Your task to perform on an android device: snooze an email in the gmail app Image 0: 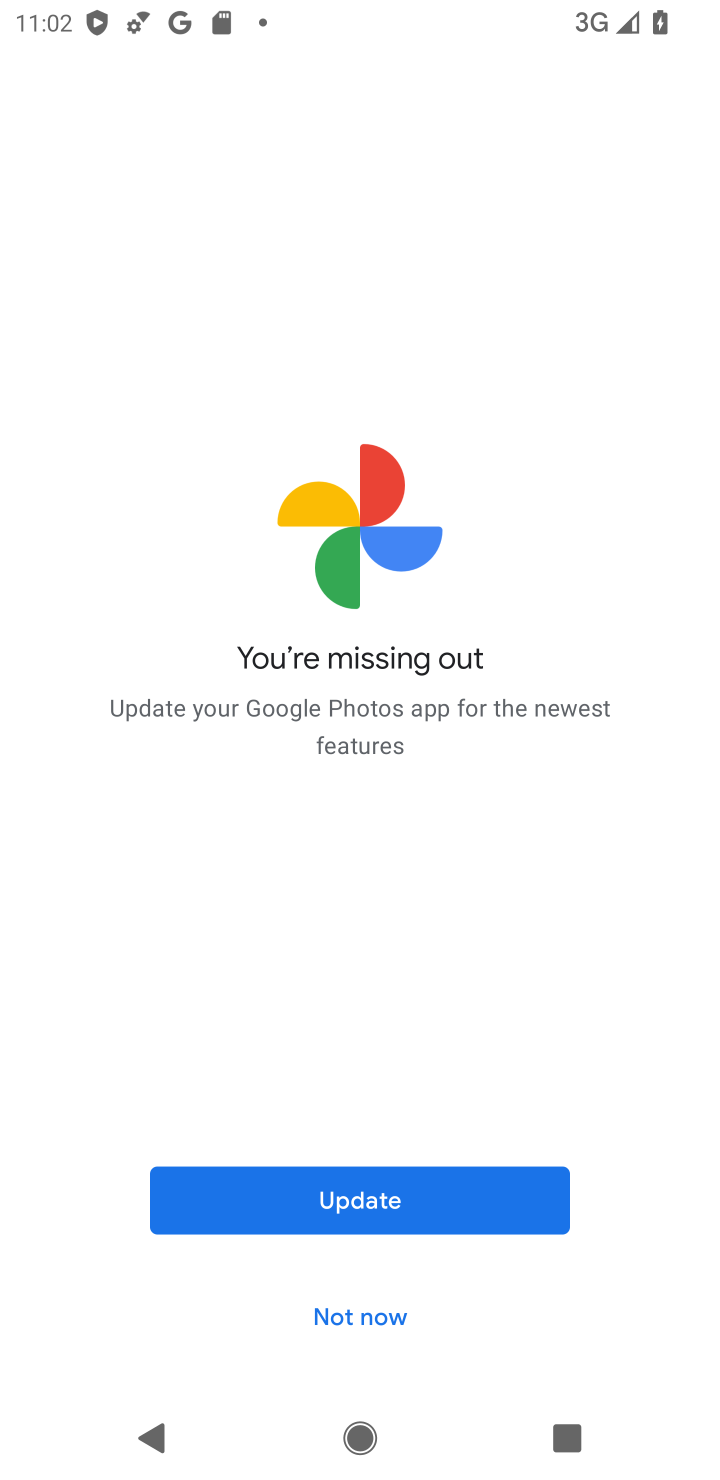
Step 0: press home button
Your task to perform on an android device: snooze an email in the gmail app Image 1: 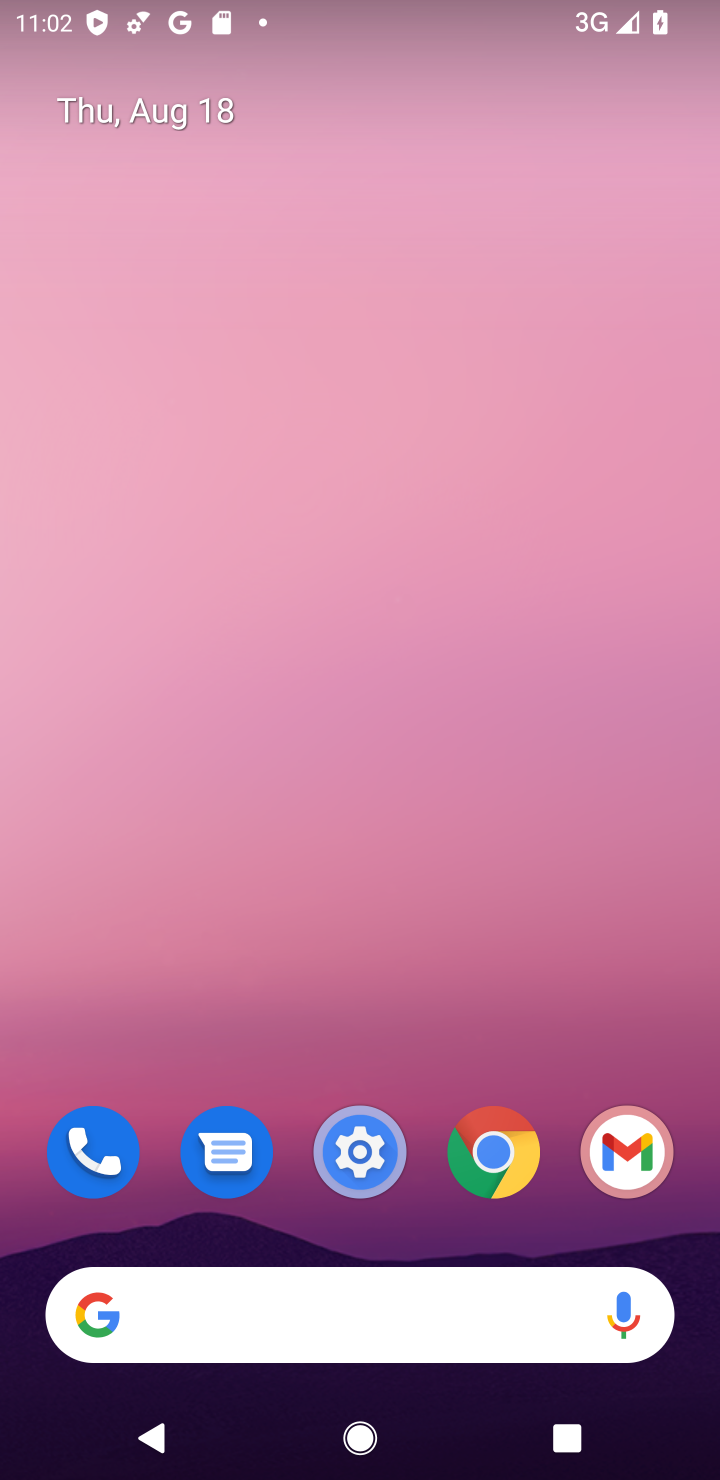
Step 1: click (649, 1141)
Your task to perform on an android device: snooze an email in the gmail app Image 2: 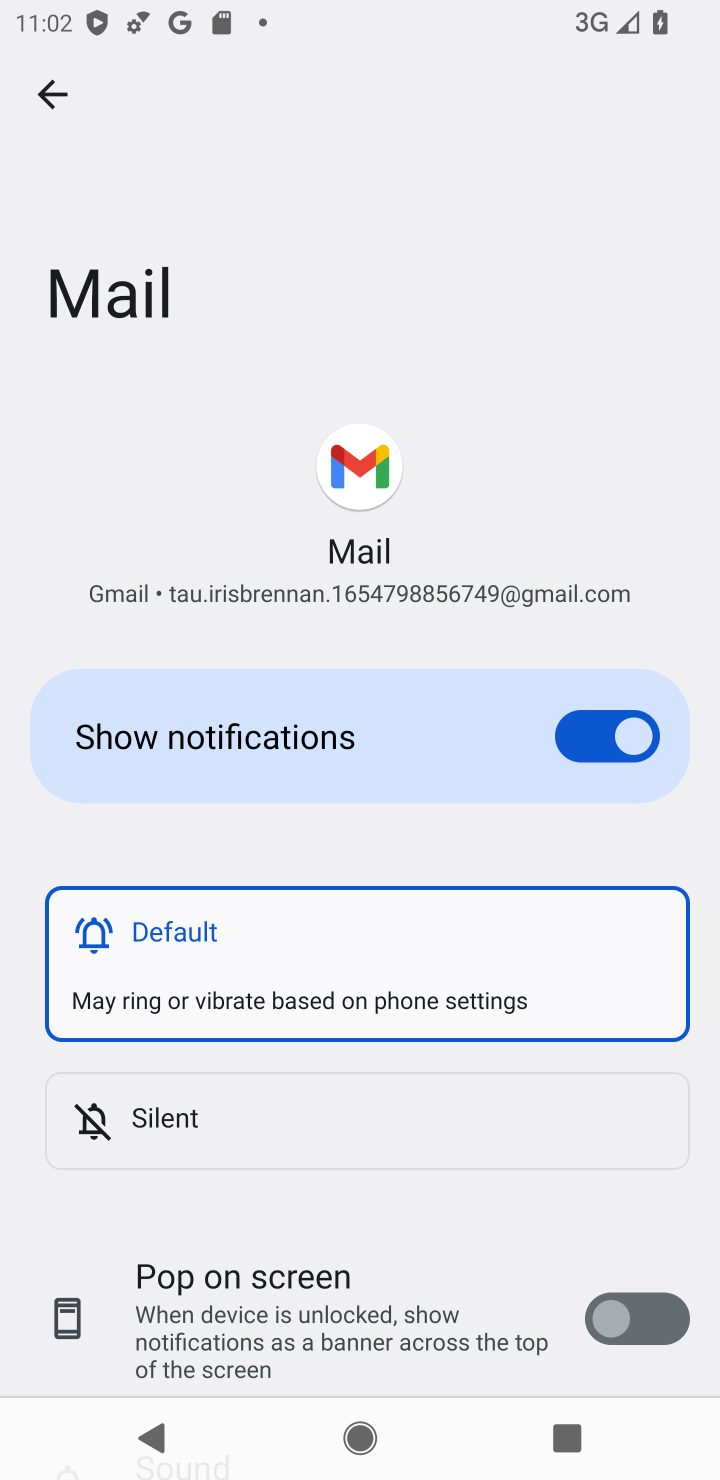
Step 2: press back button
Your task to perform on an android device: snooze an email in the gmail app Image 3: 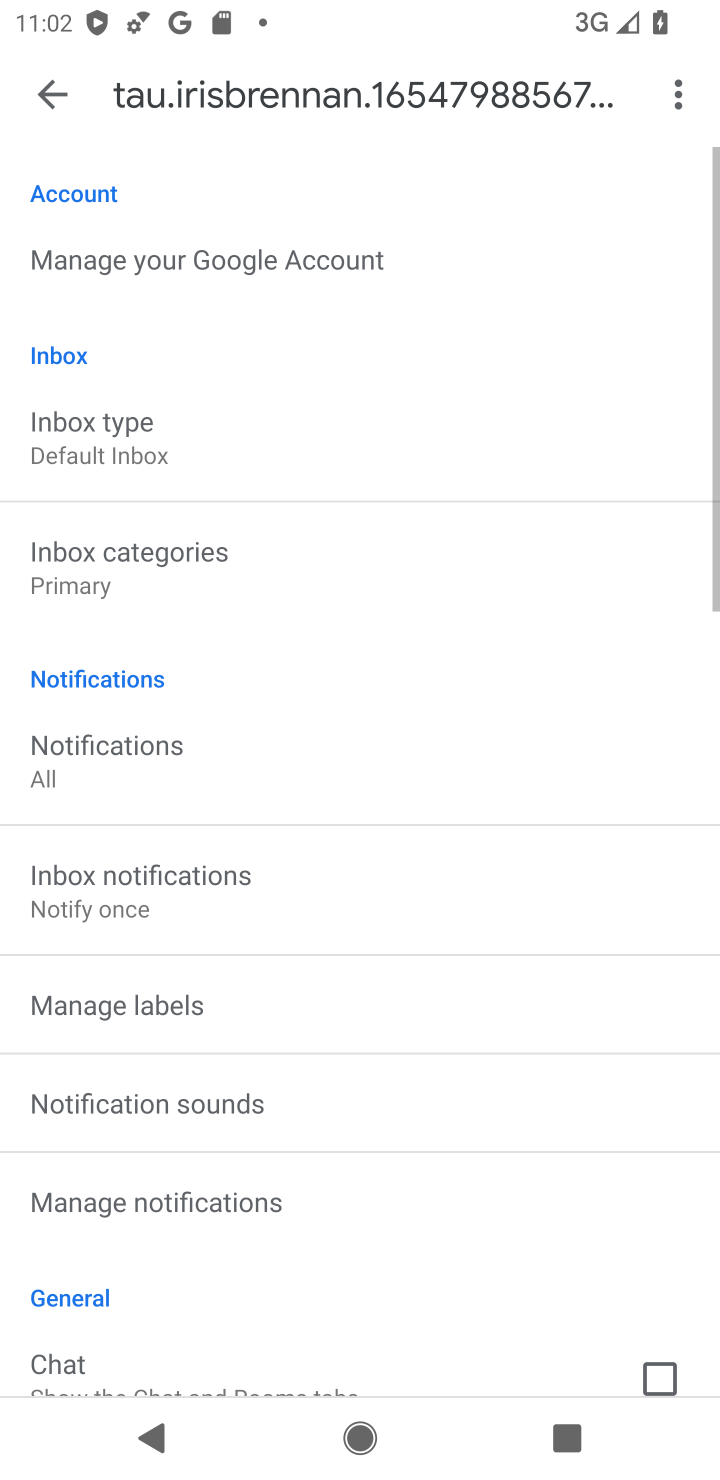
Step 3: press back button
Your task to perform on an android device: snooze an email in the gmail app Image 4: 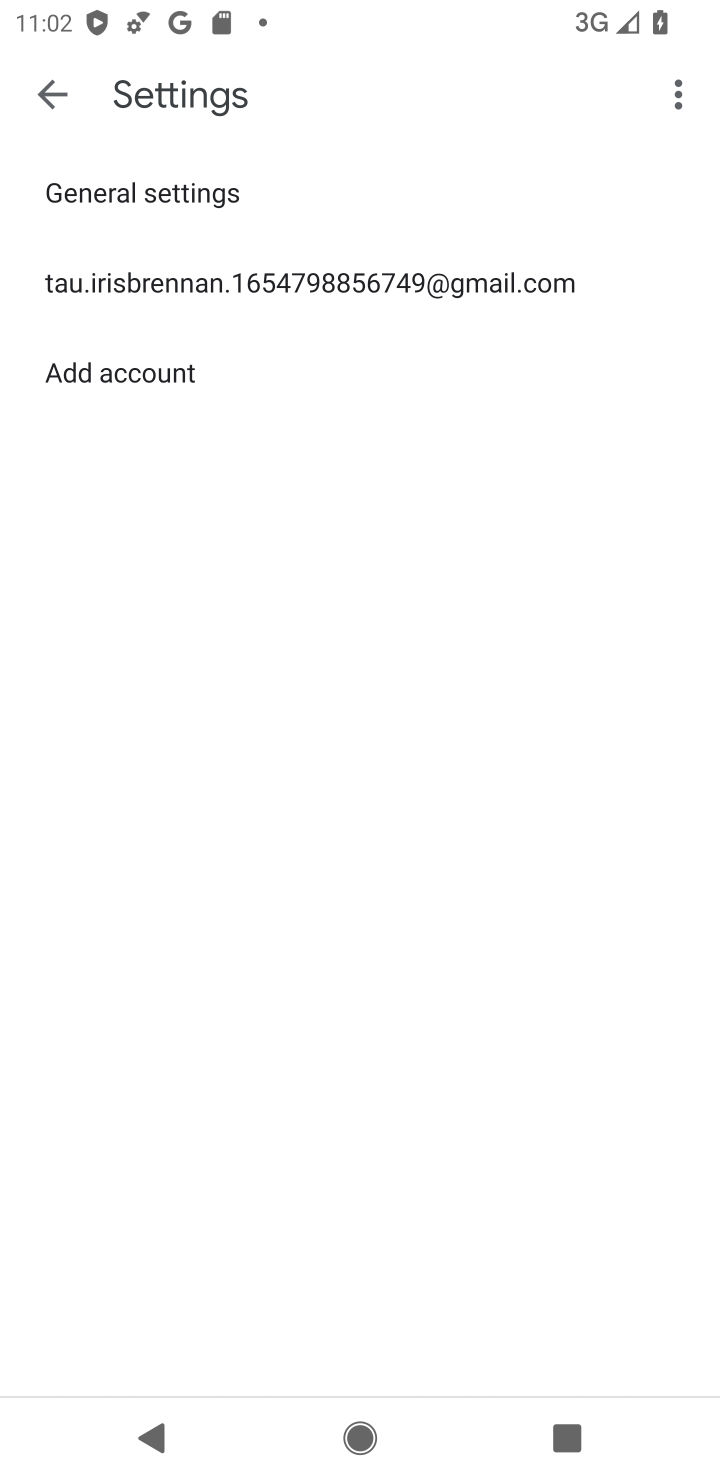
Step 4: press back button
Your task to perform on an android device: snooze an email in the gmail app Image 5: 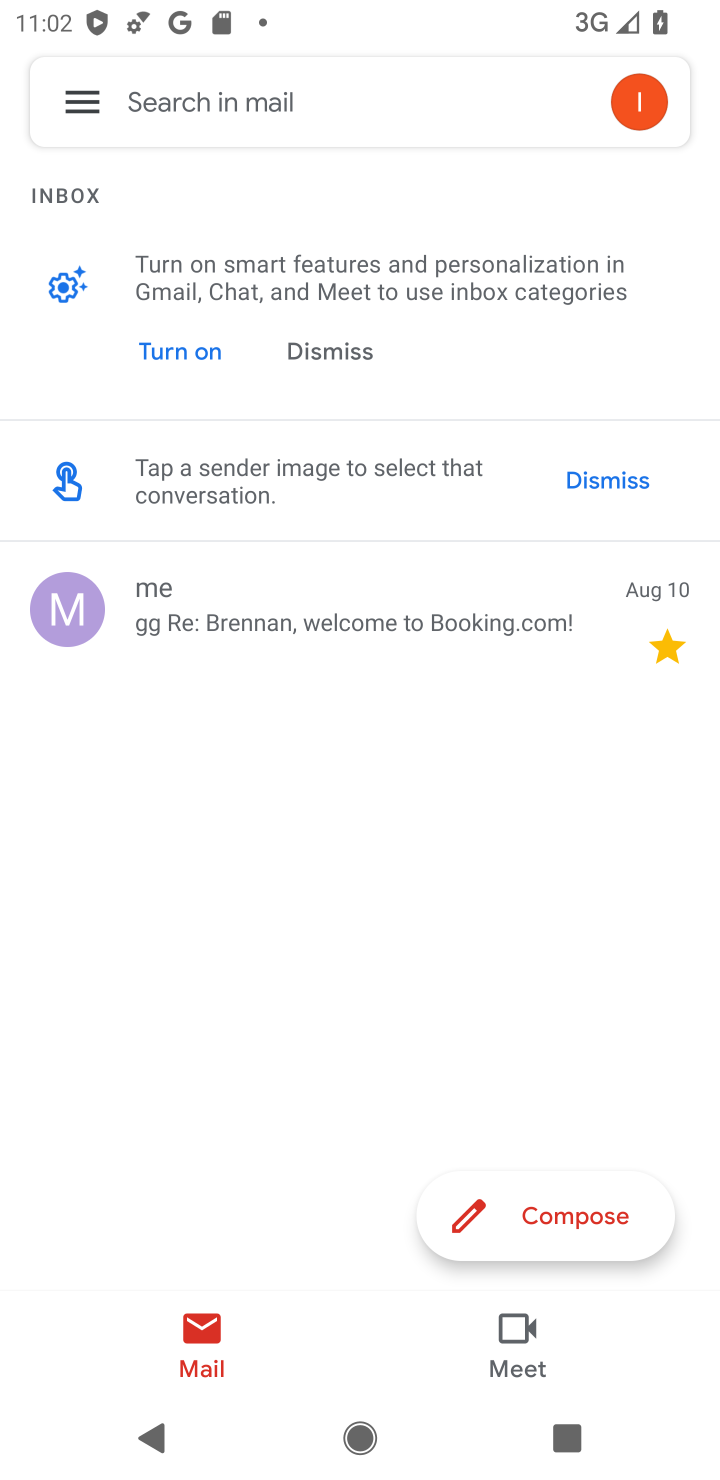
Step 5: click (408, 622)
Your task to perform on an android device: snooze an email in the gmail app Image 6: 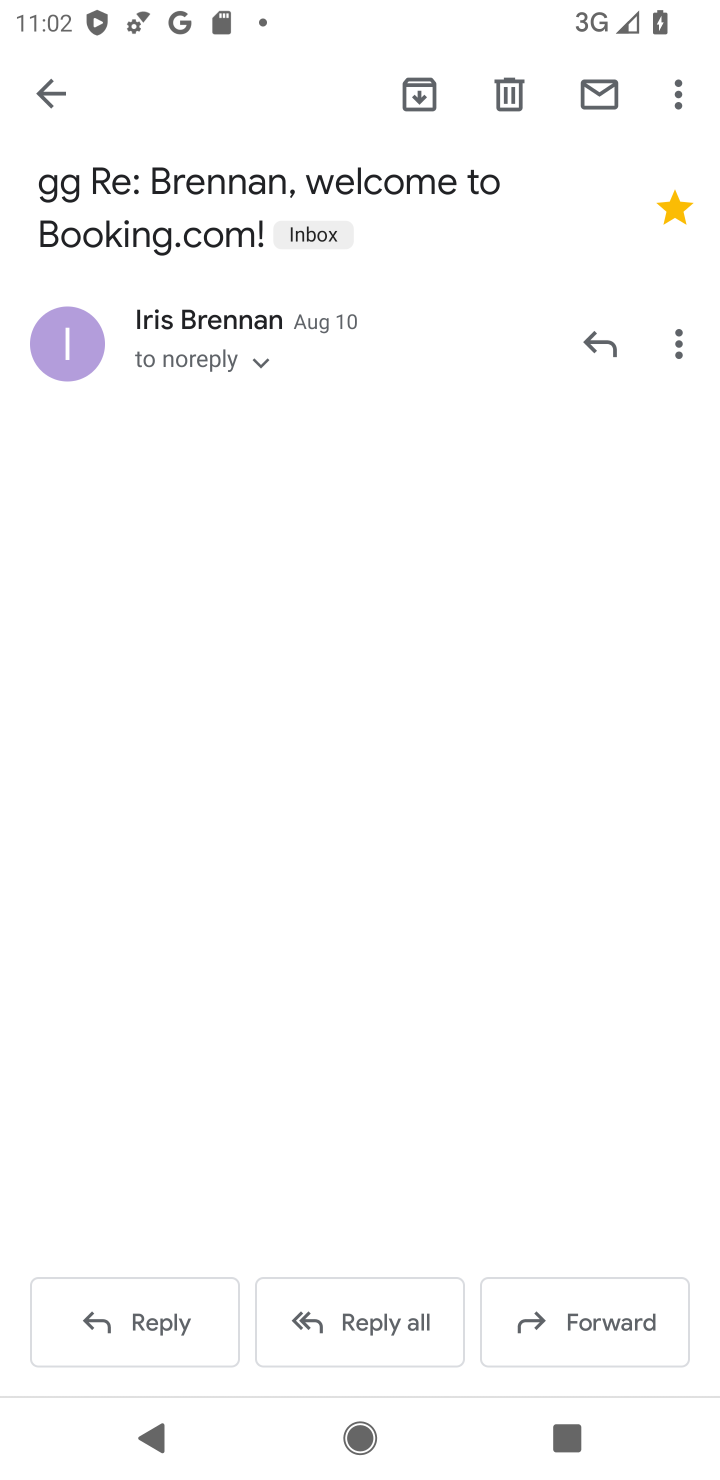
Step 6: click (681, 89)
Your task to perform on an android device: snooze an email in the gmail app Image 7: 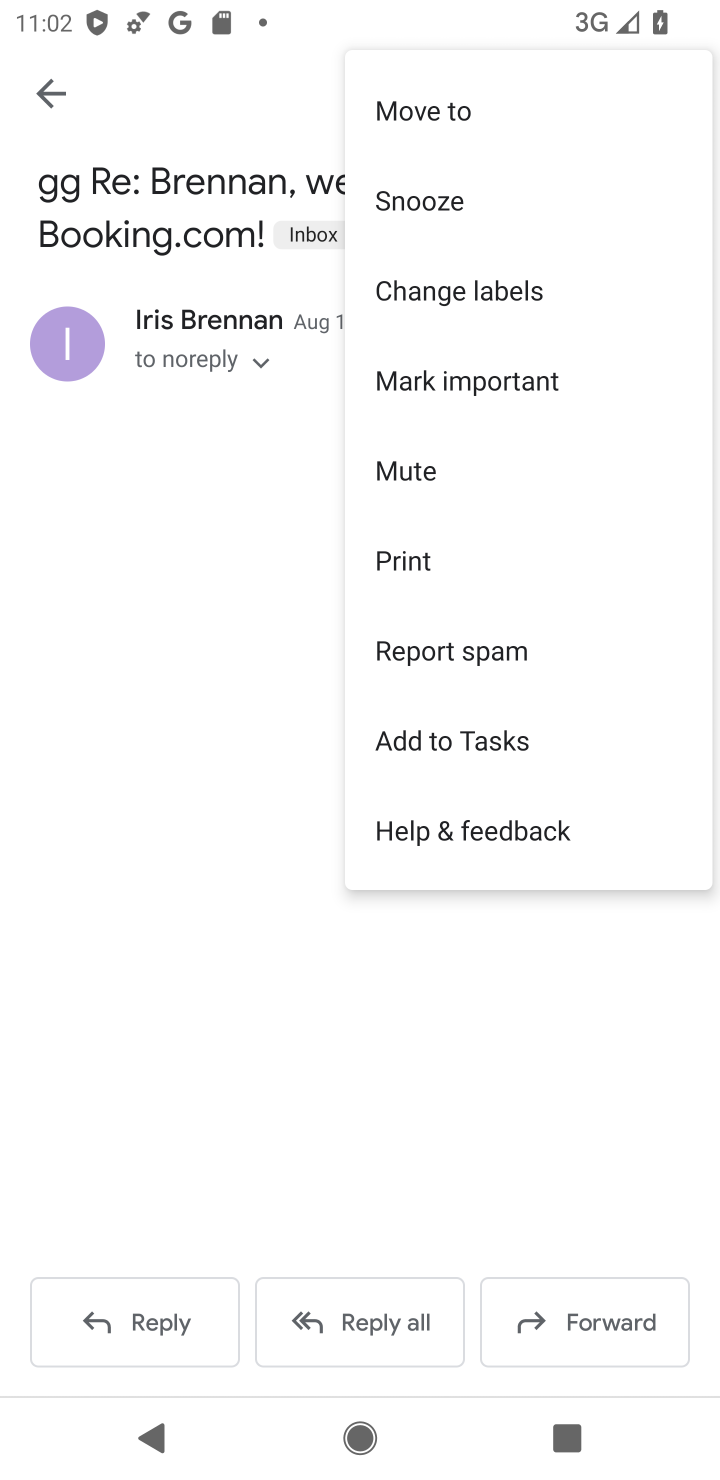
Step 7: click (519, 195)
Your task to perform on an android device: snooze an email in the gmail app Image 8: 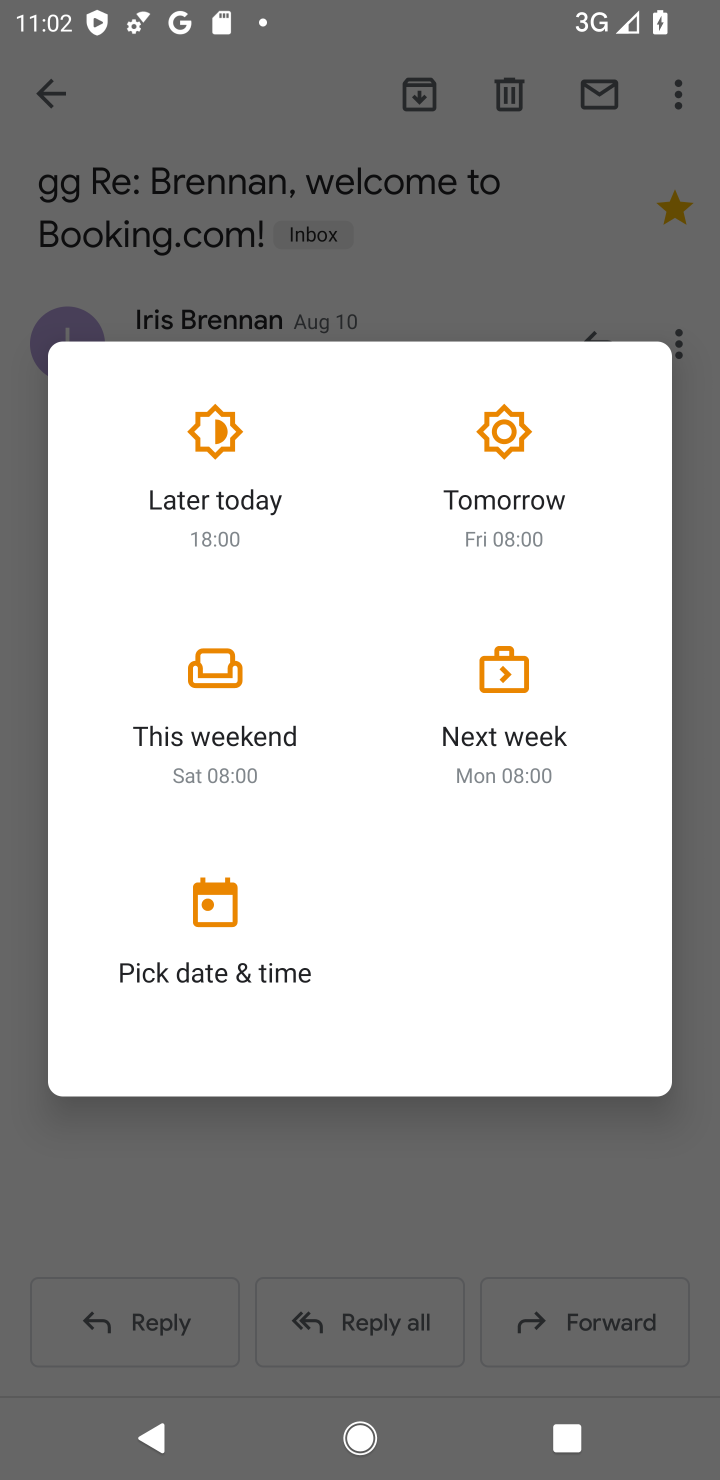
Step 8: click (491, 467)
Your task to perform on an android device: snooze an email in the gmail app Image 9: 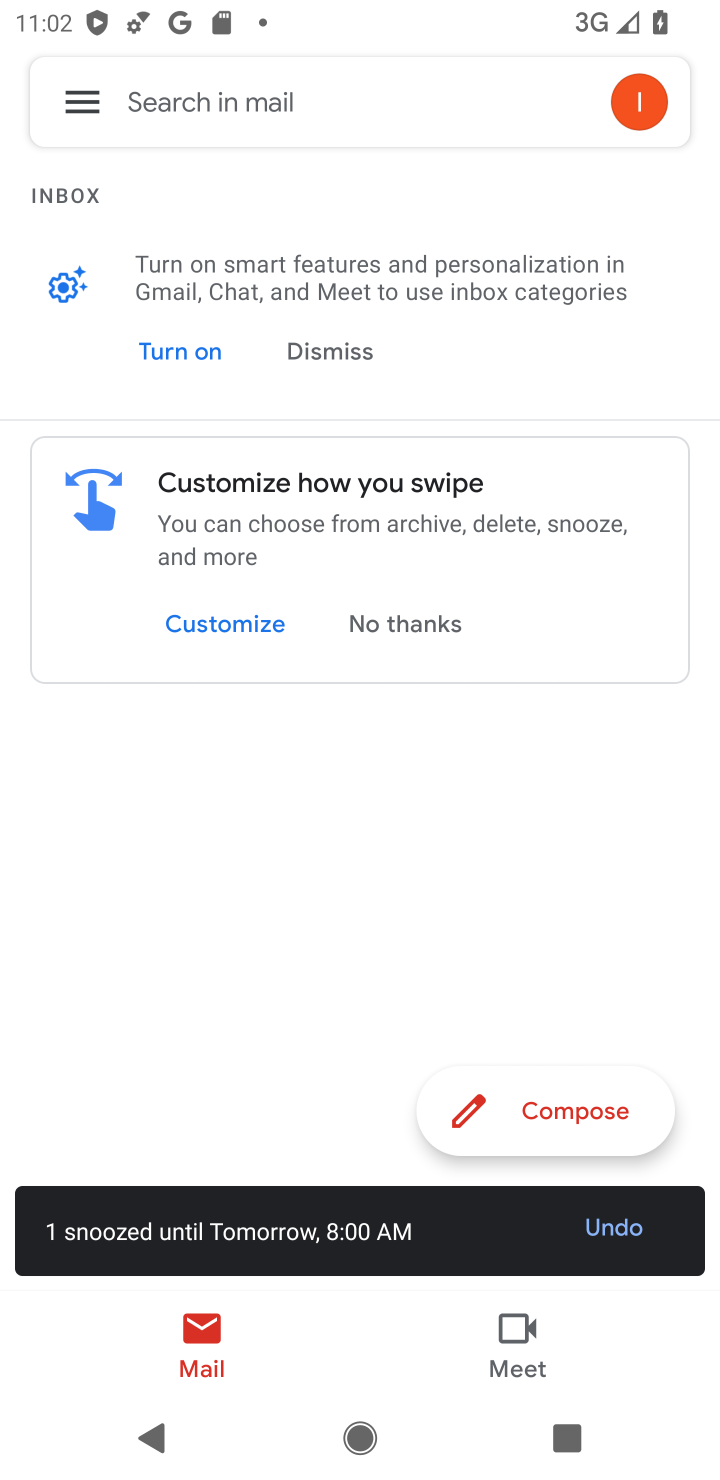
Step 9: task complete